Your task to perform on an android device: What is the recent news? Image 0: 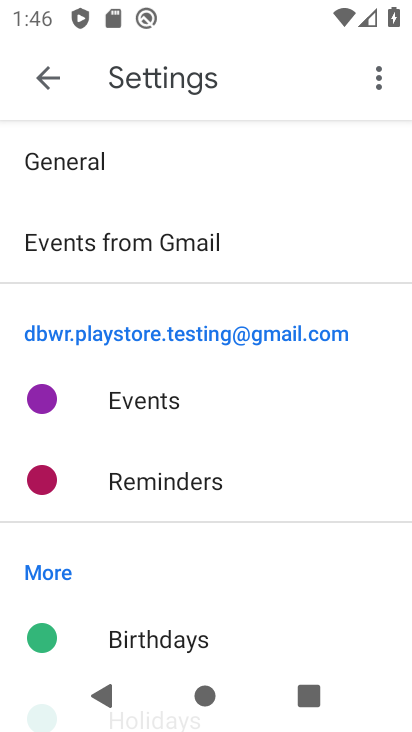
Step 0: press home button
Your task to perform on an android device: What is the recent news? Image 1: 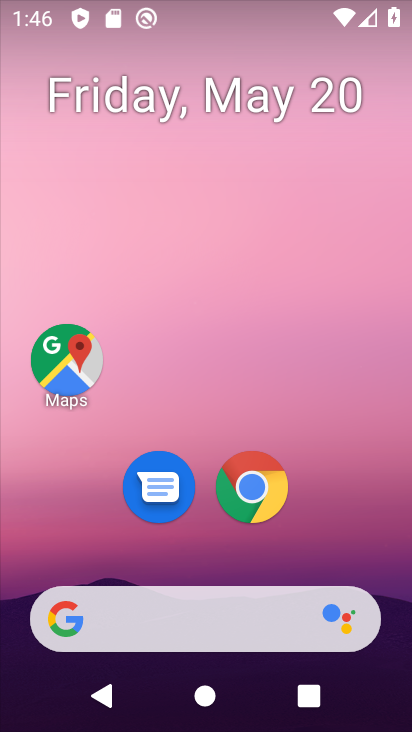
Step 1: drag from (313, 533) to (311, 48)
Your task to perform on an android device: What is the recent news? Image 2: 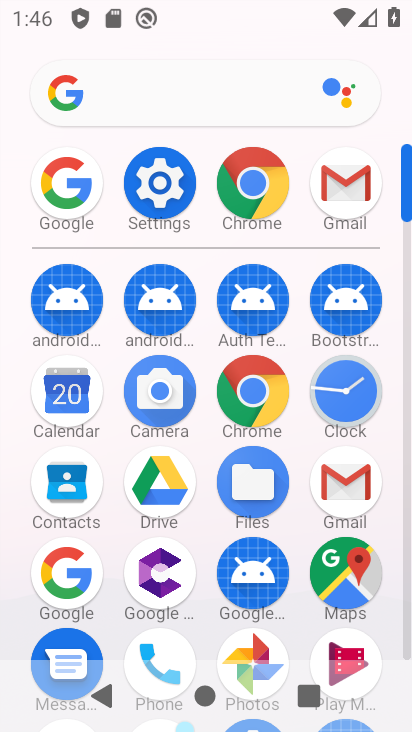
Step 2: click (237, 182)
Your task to perform on an android device: What is the recent news? Image 3: 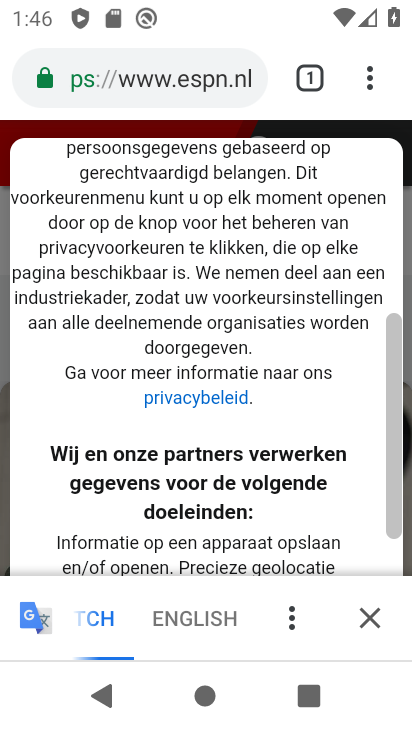
Step 3: task complete